Your task to perform on an android device: delete location history Image 0: 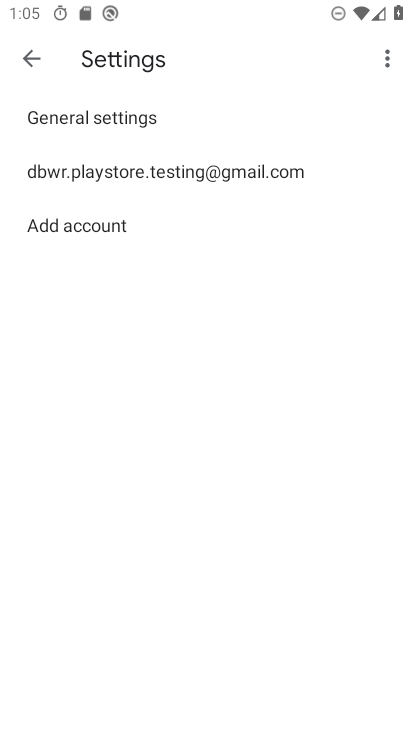
Step 0: press home button
Your task to perform on an android device: delete location history Image 1: 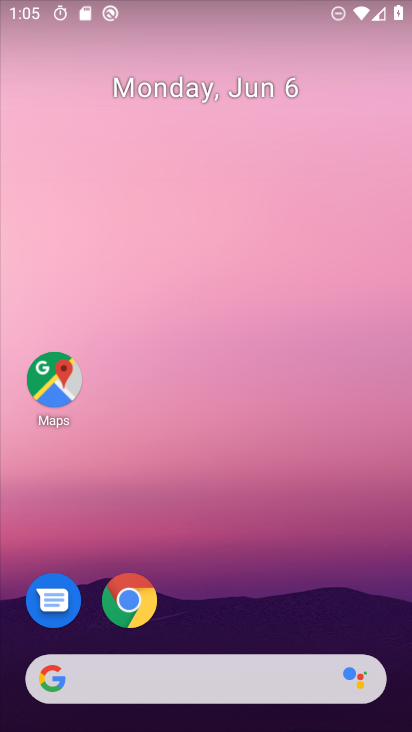
Step 1: drag from (222, 612) to (224, 149)
Your task to perform on an android device: delete location history Image 2: 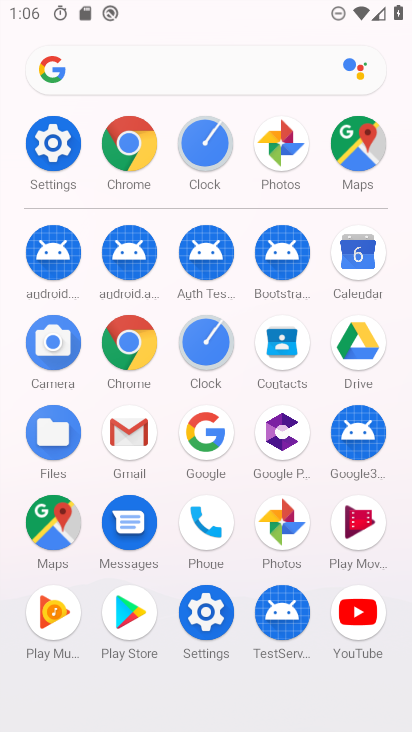
Step 2: click (339, 149)
Your task to perform on an android device: delete location history Image 3: 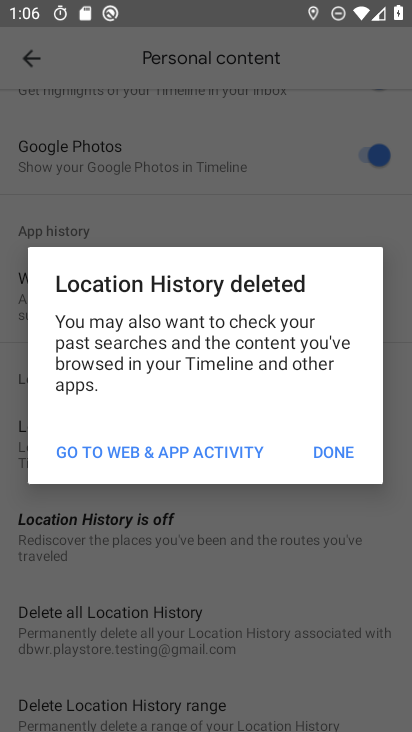
Step 3: click (328, 451)
Your task to perform on an android device: delete location history Image 4: 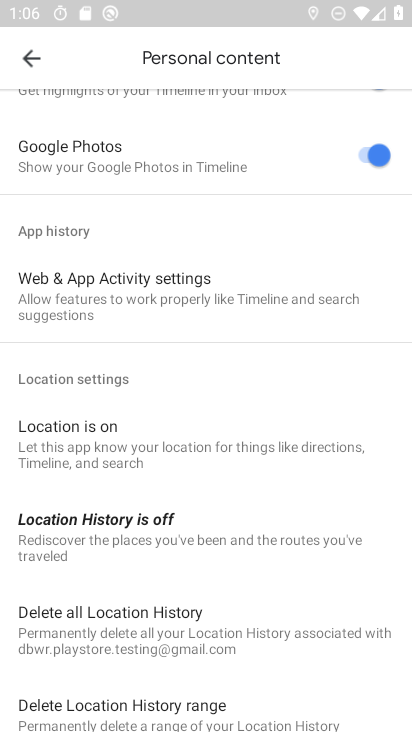
Step 4: task complete